Your task to perform on an android device: Open my contact list Image 0: 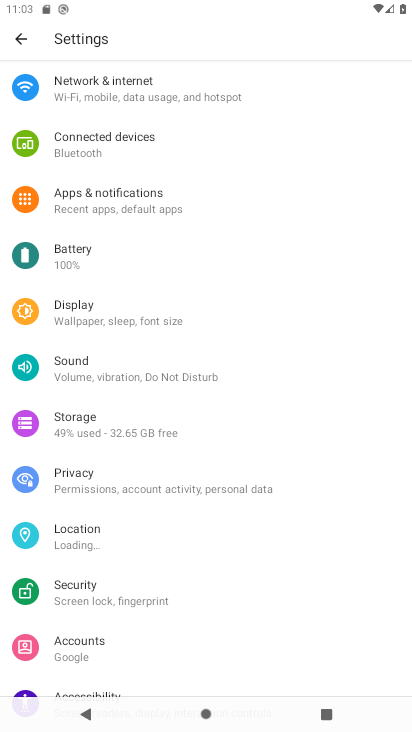
Step 0: press home button
Your task to perform on an android device: Open my contact list Image 1: 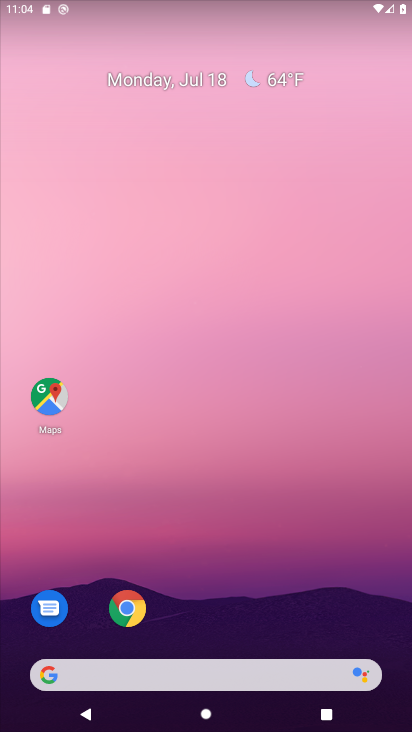
Step 1: drag from (8, 632) to (256, 86)
Your task to perform on an android device: Open my contact list Image 2: 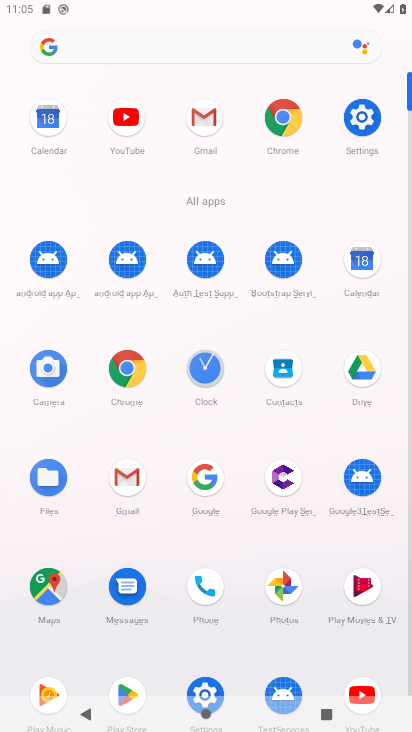
Step 2: click (205, 585)
Your task to perform on an android device: Open my contact list Image 3: 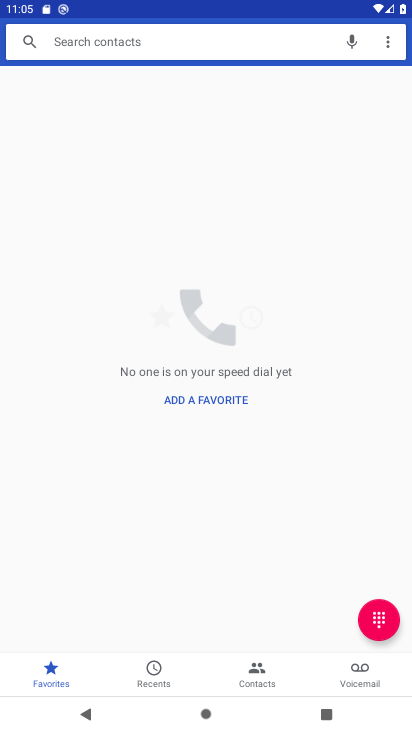
Step 3: click (259, 673)
Your task to perform on an android device: Open my contact list Image 4: 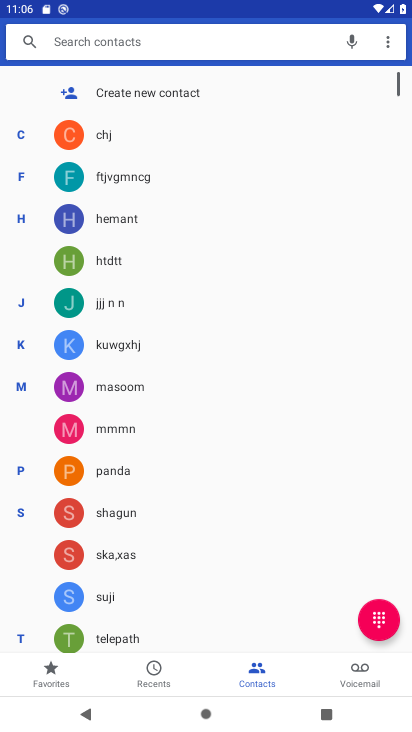
Step 4: task complete